Your task to perform on an android device: open a new tab in the chrome app Image 0: 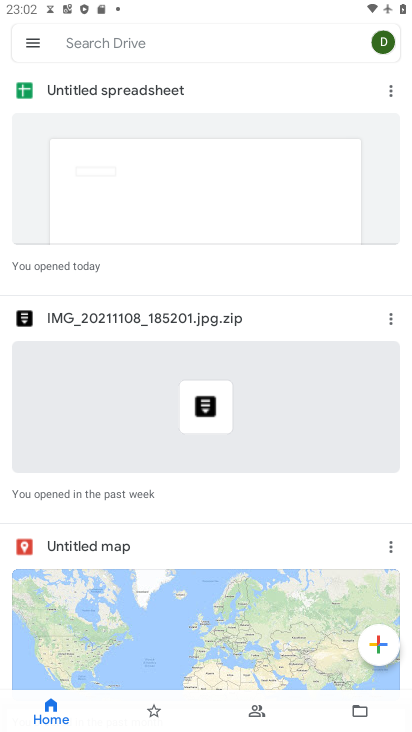
Step 0: press home button
Your task to perform on an android device: open a new tab in the chrome app Image 1: 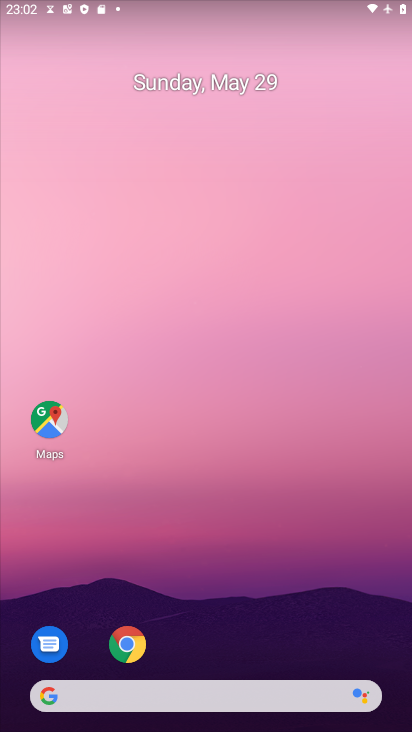
Step 1: drag from (253, 602) to (221, 292)
Your task to perform on an android device: open a new tab in the chrome app Image 2: 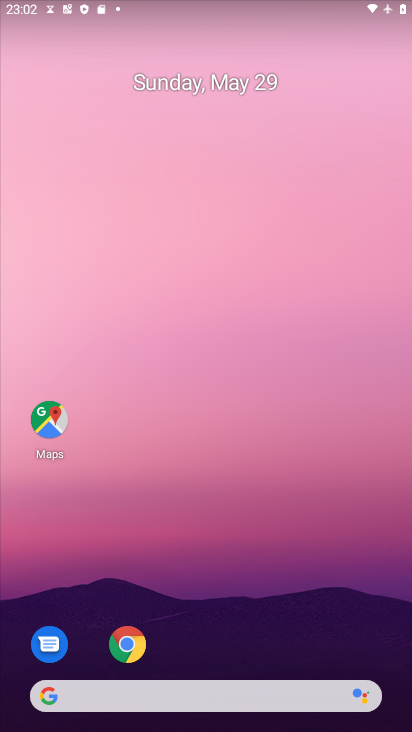
Step 2: click (117, 637)
Your task to perform on an android device: open a new tab in the chrome app Image 3: 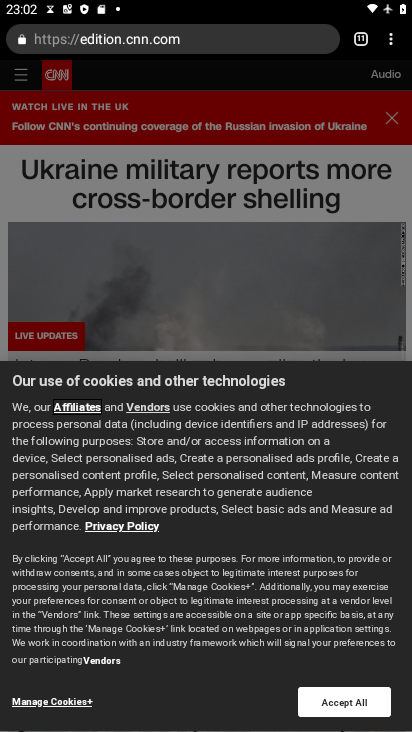
Step 3: click (394, 35)
Your task to perform on an android device: open a new tab in the chrome app Image 4: 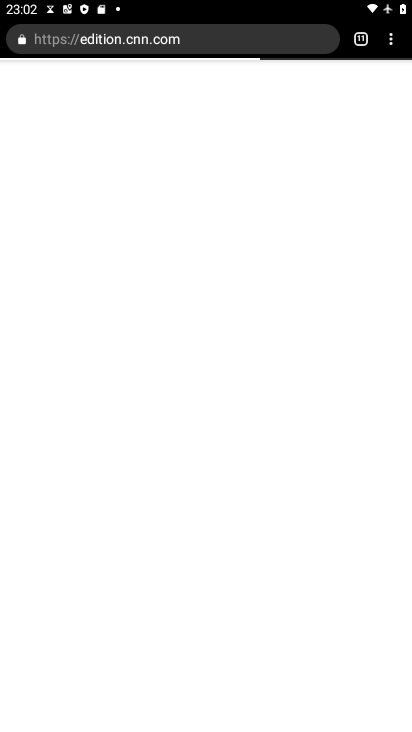
Step 4: click (390, 42)
Your task to perform on an android device: open a new tab in the chrome app Image 5: 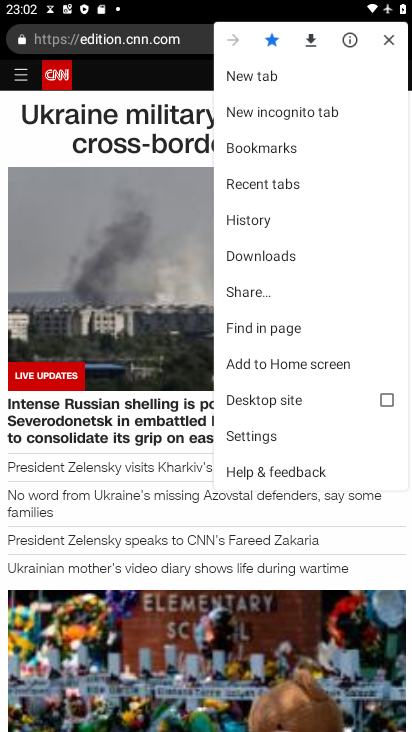
Step 5: click (277, 68)
Your task to perform on an android device: open a new tab in the chrome app Image 6: 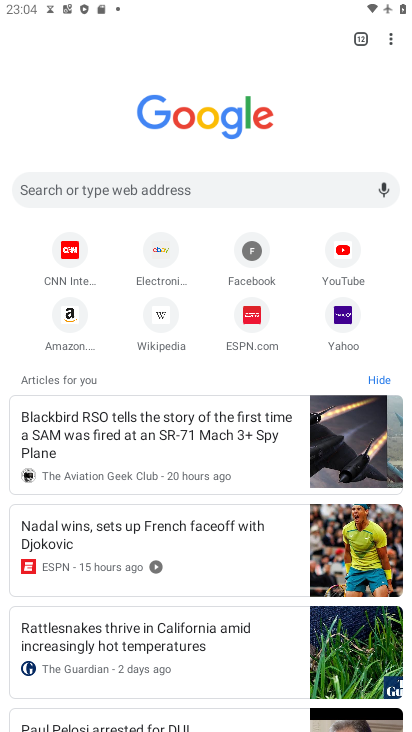
Step 6: task complete